Your task to perform on an android device: Open maps Image 0: 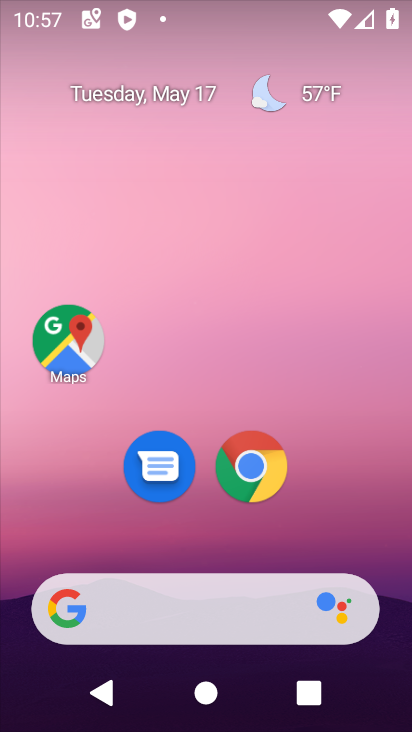
Step 0: click (68, 333)
Your task to perform on an android device: Open maps Image 1: 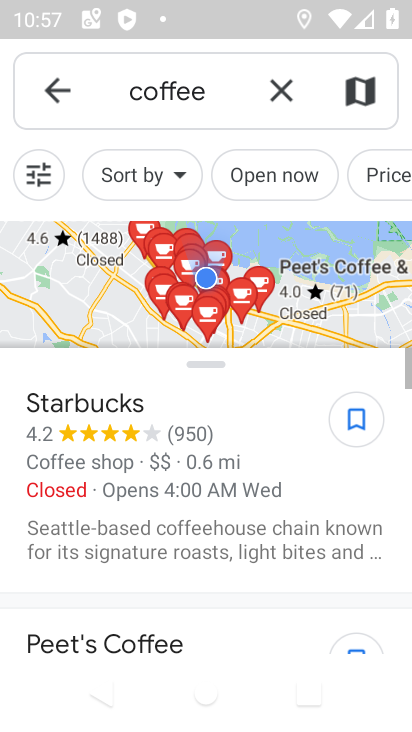
Step 1: task complete